Your task to perform on an android device: turn on airplane mode Image 0: 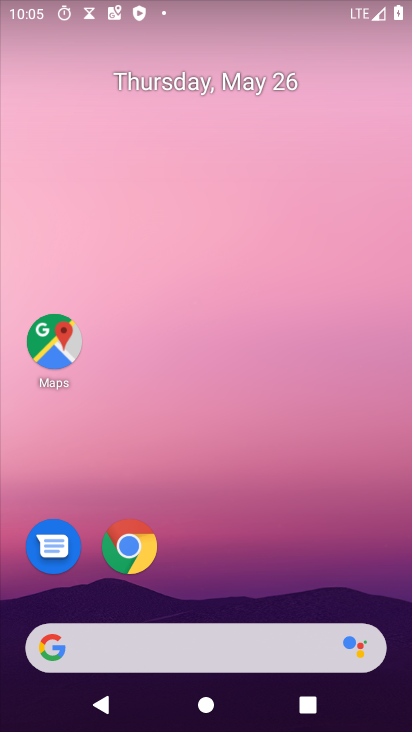
Step 0: drag from (352, 572) to (340, 159)
Your task to perform on an android device: turn on airplane mode Image 1: 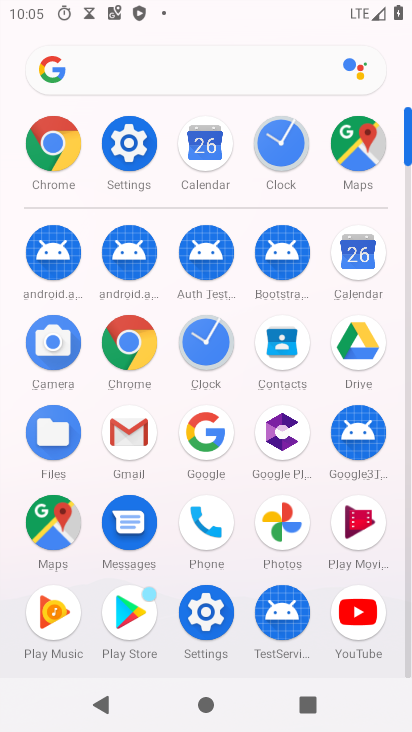
Step 1: click (213, 624)
Your task to perform on an android device: turn on airplane mode Image 2: 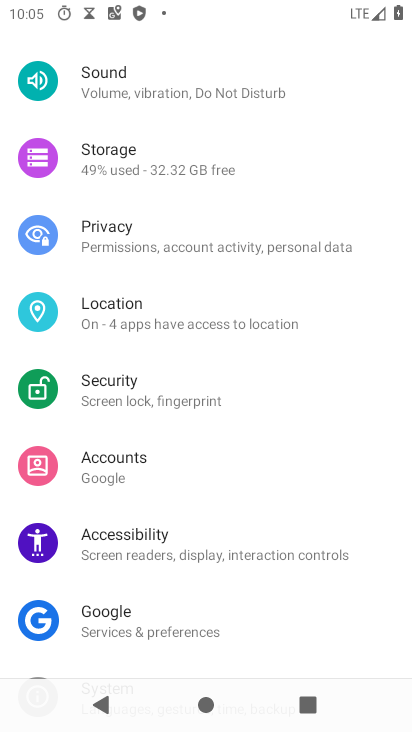
Step 2: drag from (240, 180) to (256, 597)
Your task to perform on an android device: turn on airplane mode Image 3: 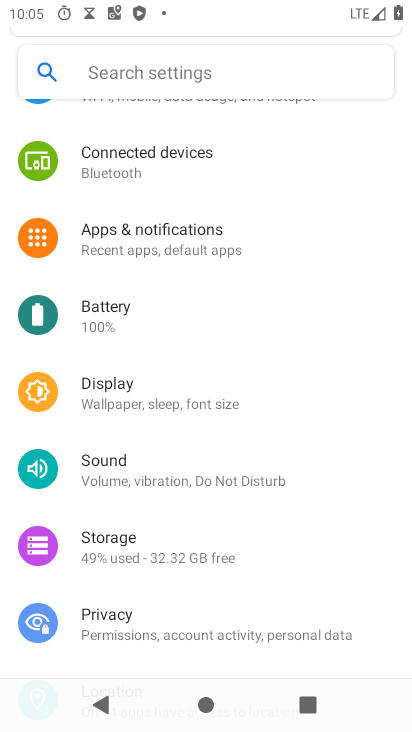
Step 3: drag from (305, 218) to (307, 599)
Your task to perform on an android device: turn on airplane mode Image 4: 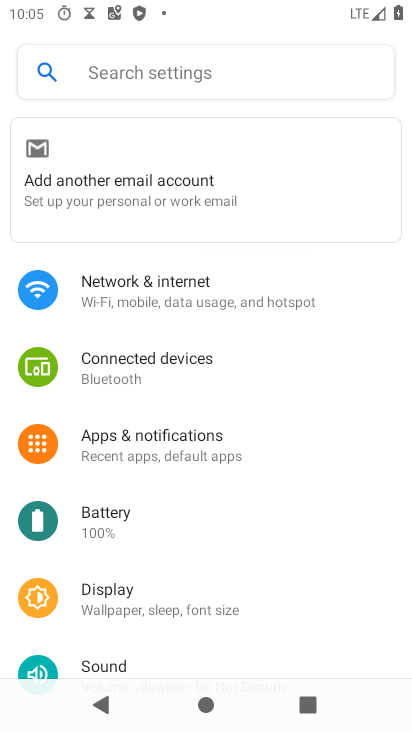
Step 4: click (275, 276)
Your task to perform on an android device: turn on airplane mode Image 5: 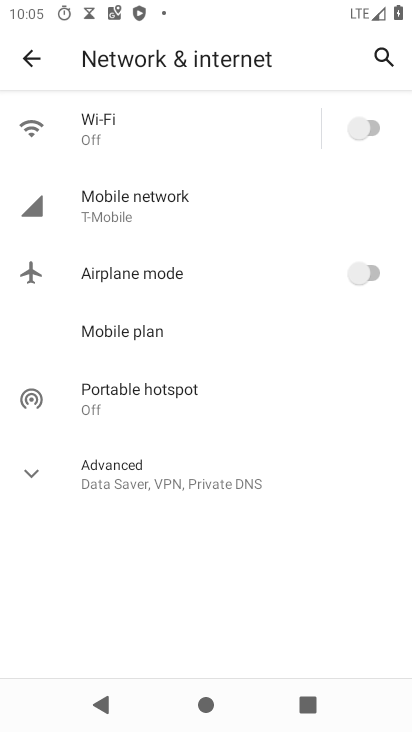
Step 5: click (380, 274)
Your task to perform on an android device: turn on airplane mode Image 6: 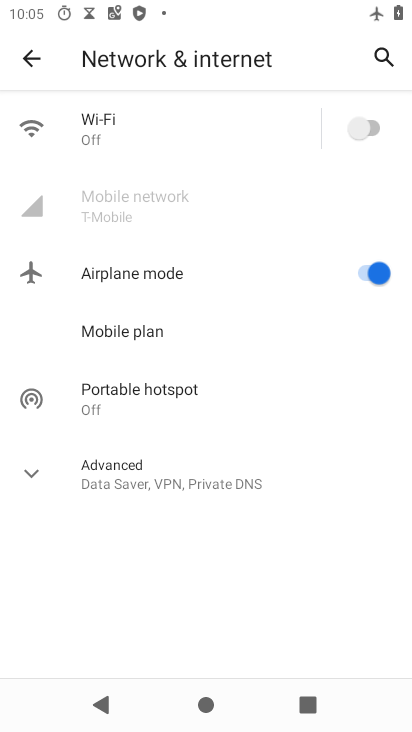
Step 6: task complete